Your task to perform on an android device: Turn off the flashlight Image 0: 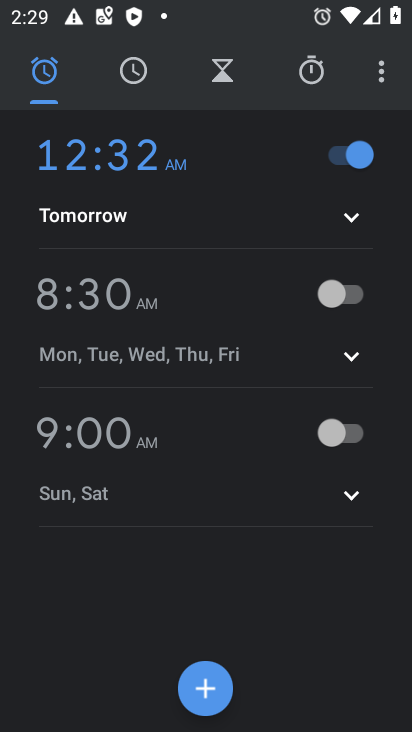
Step 0: drag from (238, 8) to (150, 467)
Your task to perform on an android device: Turn off the flashlight Image 1: 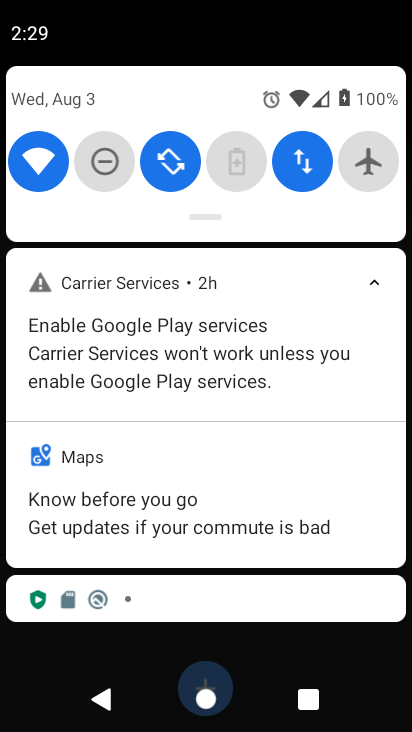
Step 1: task complete